Your task to perform on an android device: turn off notifications settings in the gmail app Image 0: 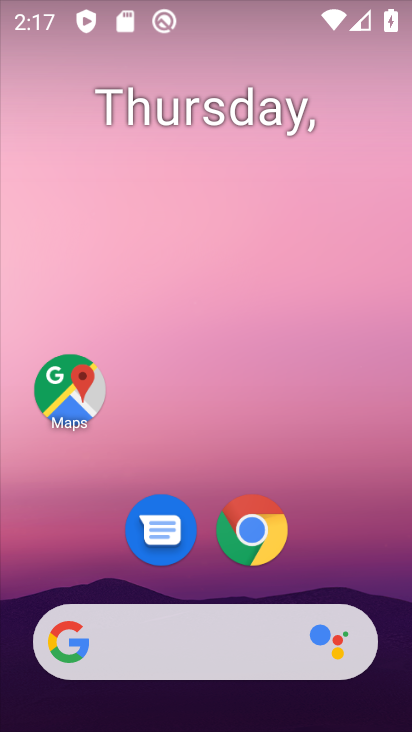
Step 0: drag from (327, 400) to (341, 9)
Your task to perform on an android device: turn off notifications settings in the gmail app Image 1: 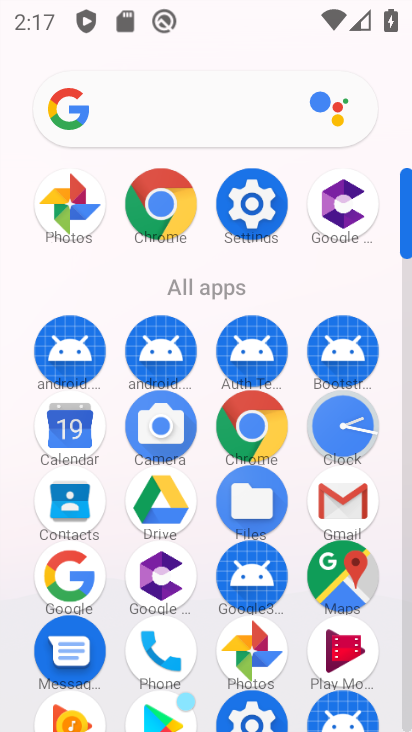
Step 1: drag from (329, 536) to (323, 209)
Your task to perform on an android device: turn off notifications settings in the gmail app Image 2: 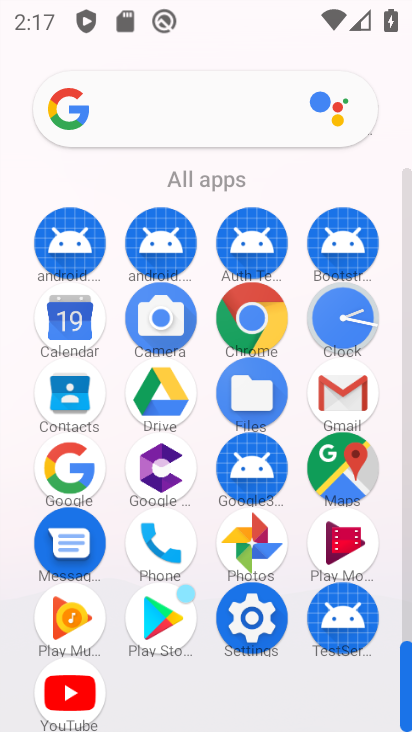
Step 2: click (344, 368)
Your task to perform on an android device: turn off notifications settings in the gmail app Image 3: 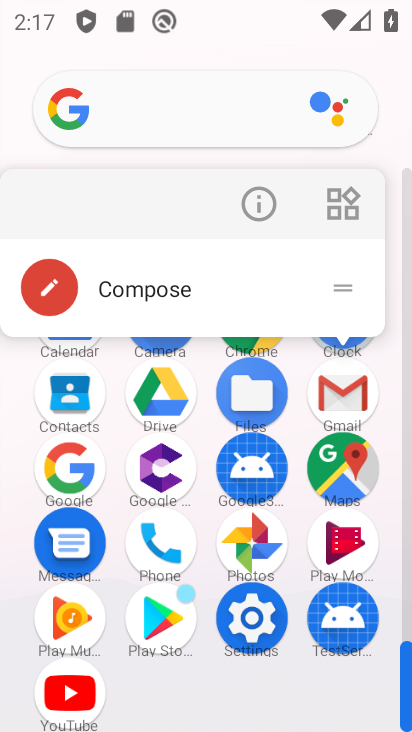
Step 3: click (260, 204)
Your task to perform on an android device: turn off notifications settings in the gmail app Image 4: 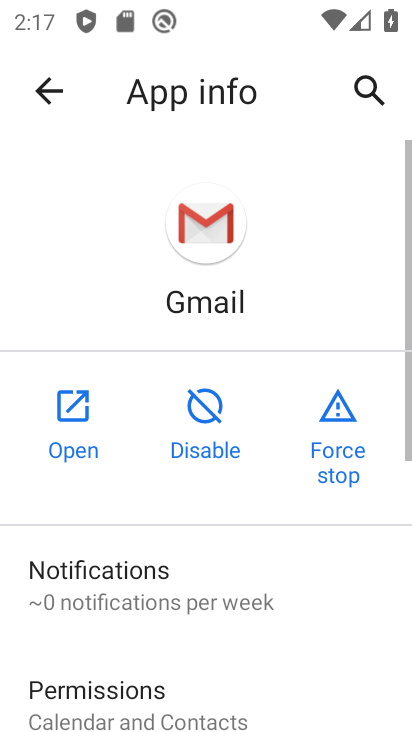
Step 4: click (193, 562)
Your task to perform on an android device: turn off notifications settings in the gmail app Image 5: 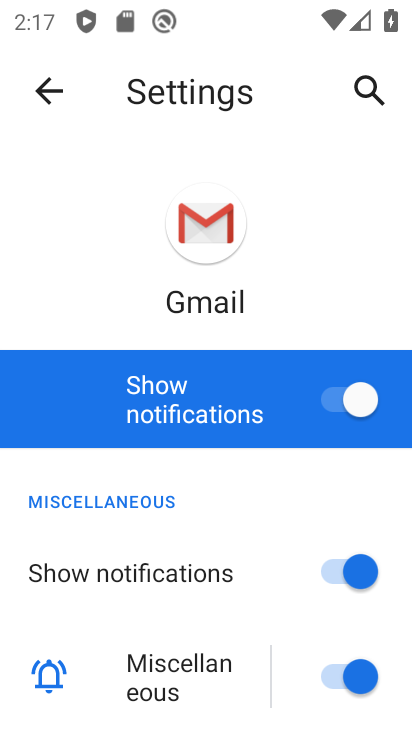
Step 5: click (311, 379)
Your task to perform on an android device: turn off notifications settings in the gmail app Image 6: 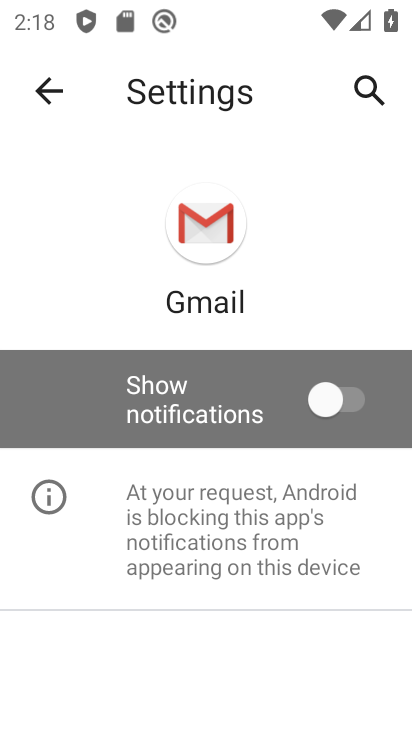
Step 6: task complete